Your task to perform on an android device: Open wifi settings Image 0: 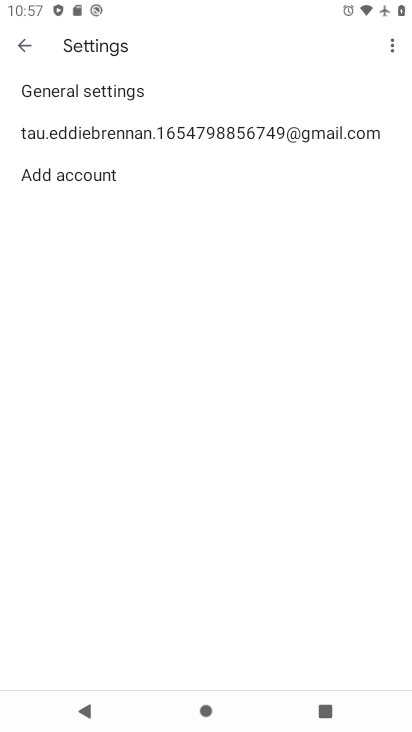
Step 0: press home button
Your task to perform on an android device: Open wifi settings Image 1: 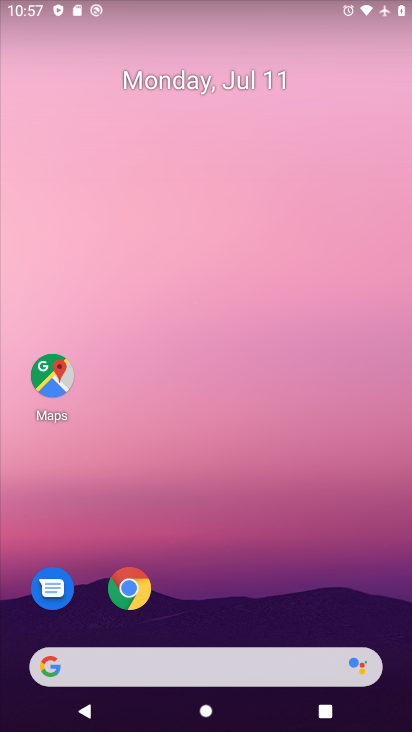
Step 1: drag from (208, 592) to (318, 21)
Your task to perform on an android device: Open wifi settings Image 2: 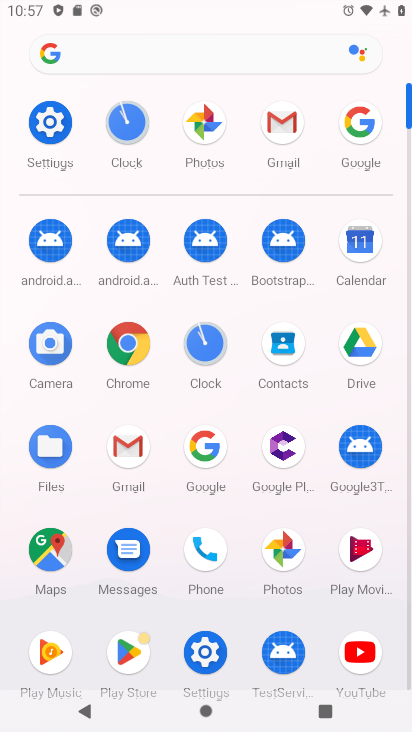
Step 2: click (54, 116)
Your task to perform on an android device: Open wifi settings Image 3: 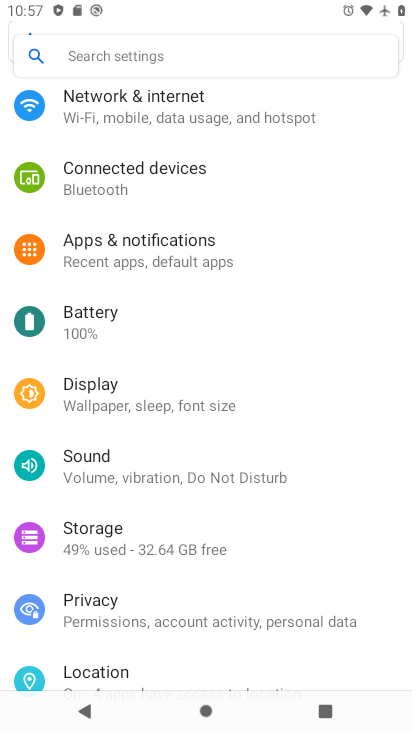
Step 3: click (166, 112)
Your task to perform on an android device: Open wifi settings Image 4: 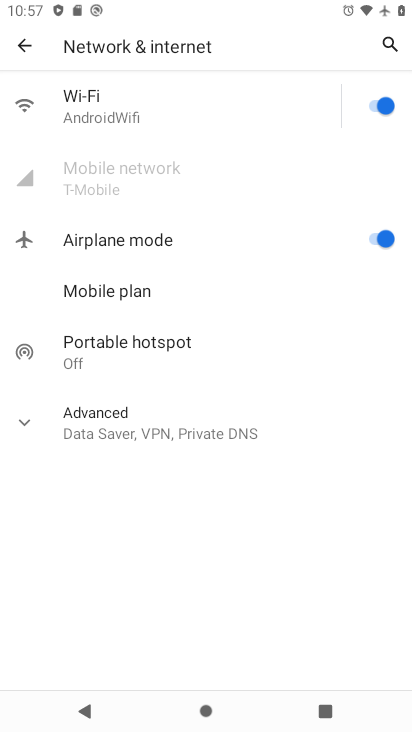
Step 4: click (120, 115)
Your task to perform on an android device: Open wifi settings Image 5: 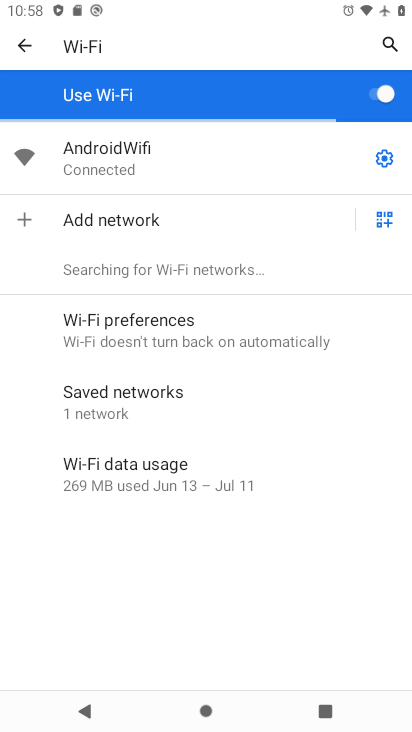
Step 5: task complete